Your task to perform on an android device: open app "McDonald's" Image 0: 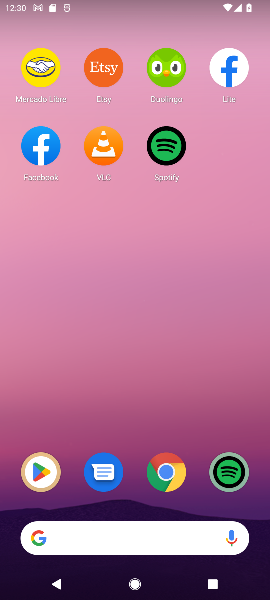
Step 0: click (42, 486)
Your task to perform on an android device: open app "McDonald's" Image 1: 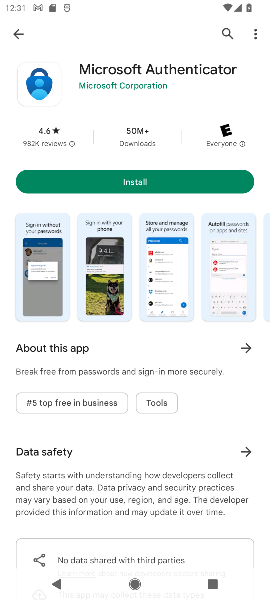
Step 1: click (223, 31)
Your task to perform on an android device: open app "McDonald's" Image 2: 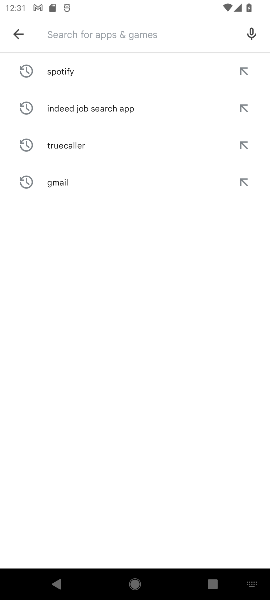
Step 2: type "mcdonal's"
Your task to perform on an android device: open app "McDonald's" Image 3: 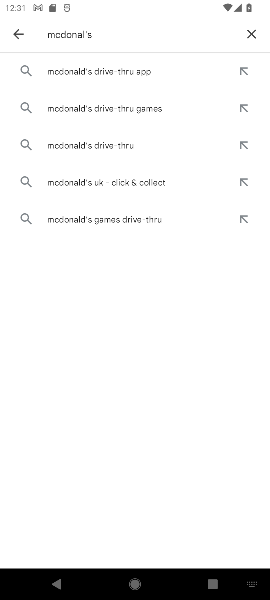
Step 3: click (145, 76)
Your task to perform on an android device: open app "McDonald's" Image 4: 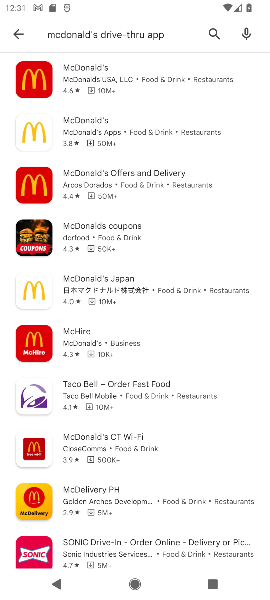
Step 4: click (118, 130)
Your task to perform on an android device: open app "McDonald's" Image 5: 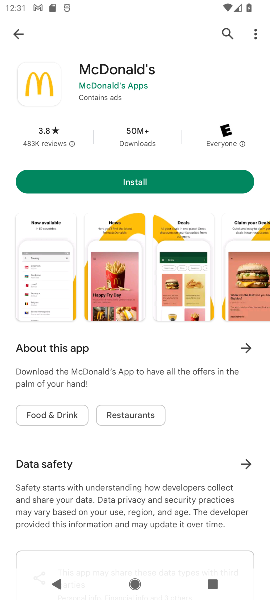
Step 5: task complete